Your task to perform on an android device: turn off priority inbox in the gmail app Image 0: 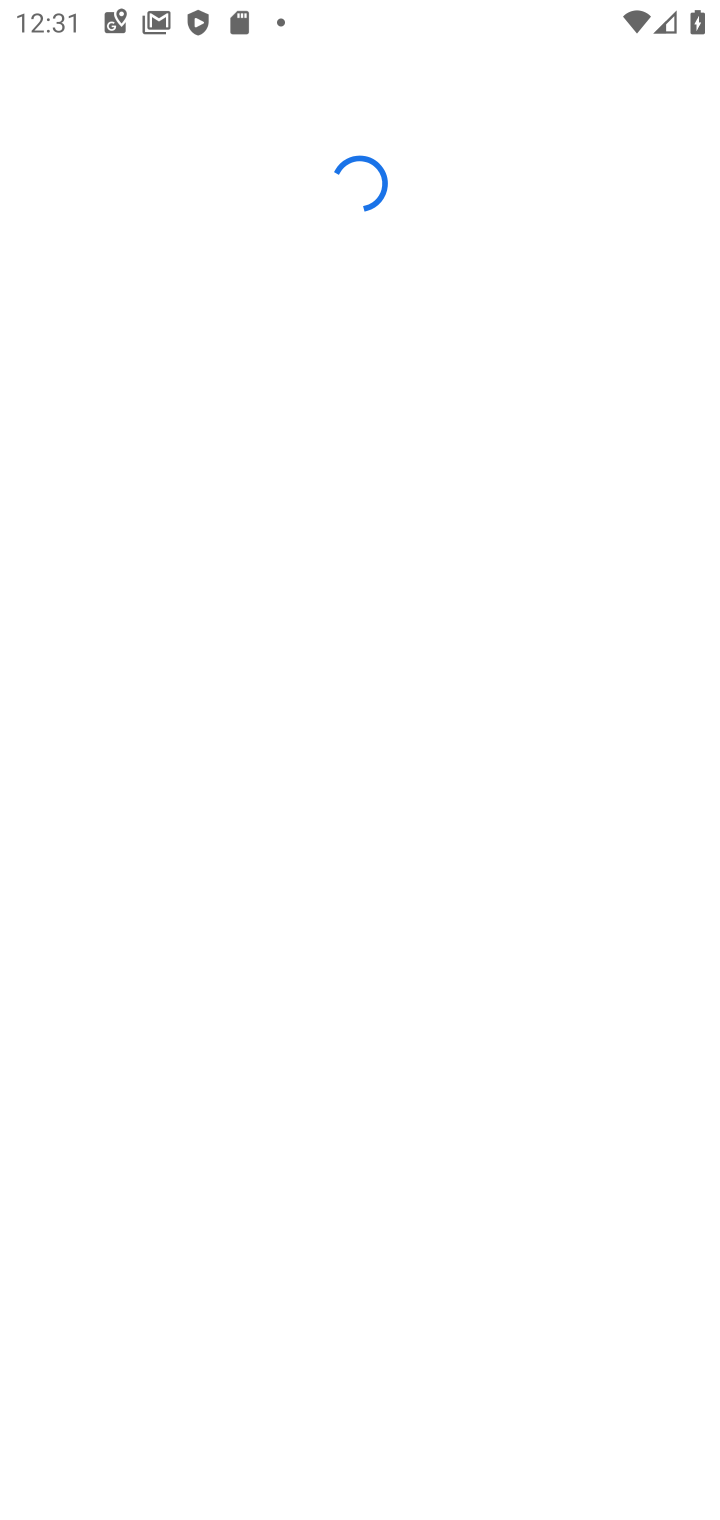
Step 0: press home button
Your task to perform on an android device: turn off priority inbox in the gmail app Image 1: 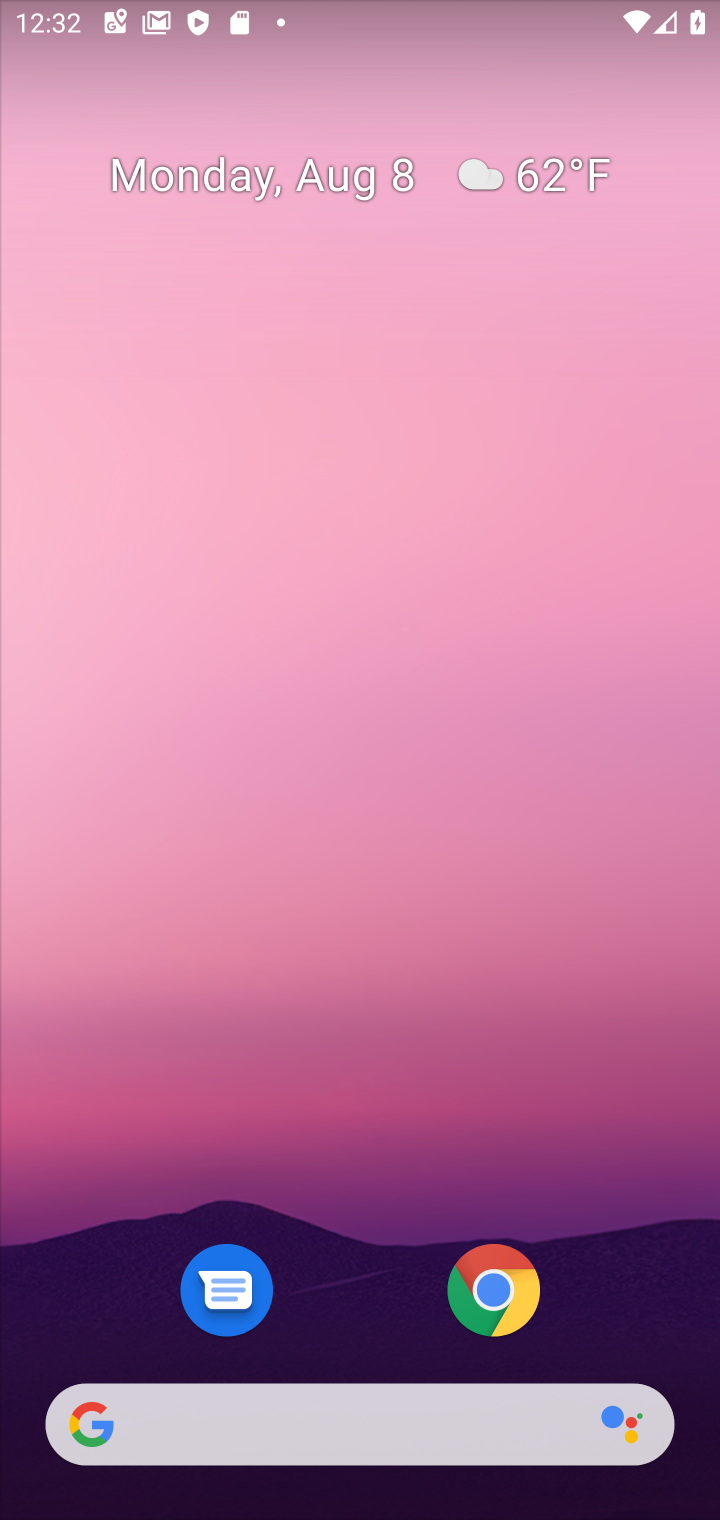
Step 1: drag from (413, 307) to (459, 32)
Your task to perform on an android device: turn off priority inbox in the gmail app Image 2: 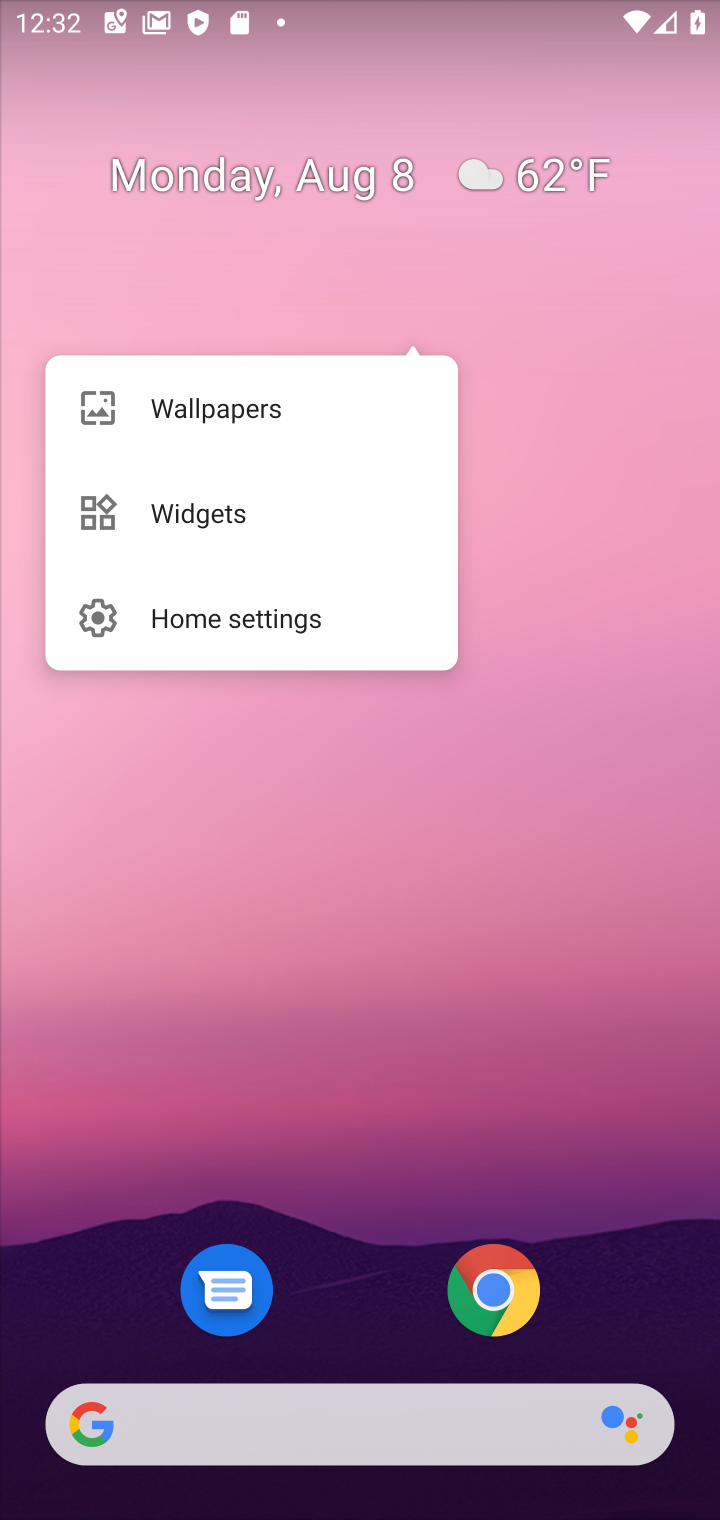
Step 2: click (350, 950)
Your task to perform on an android device: turn off priority inbox in the gmail app Image 3: 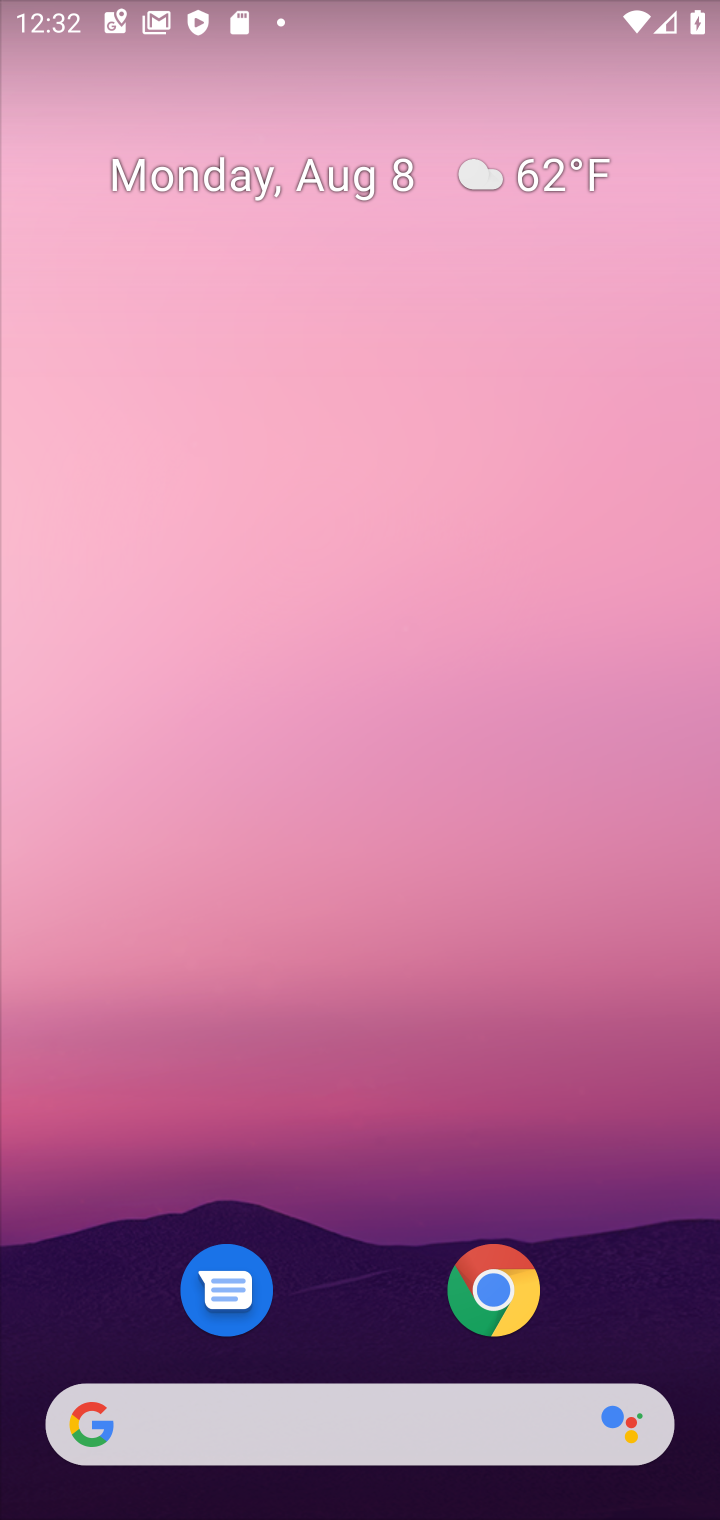
Step 3: drag from (365, 1305) to (387, 27)
Your task to perform on an android device: turn off priority inbox in the gmail app Image 4: 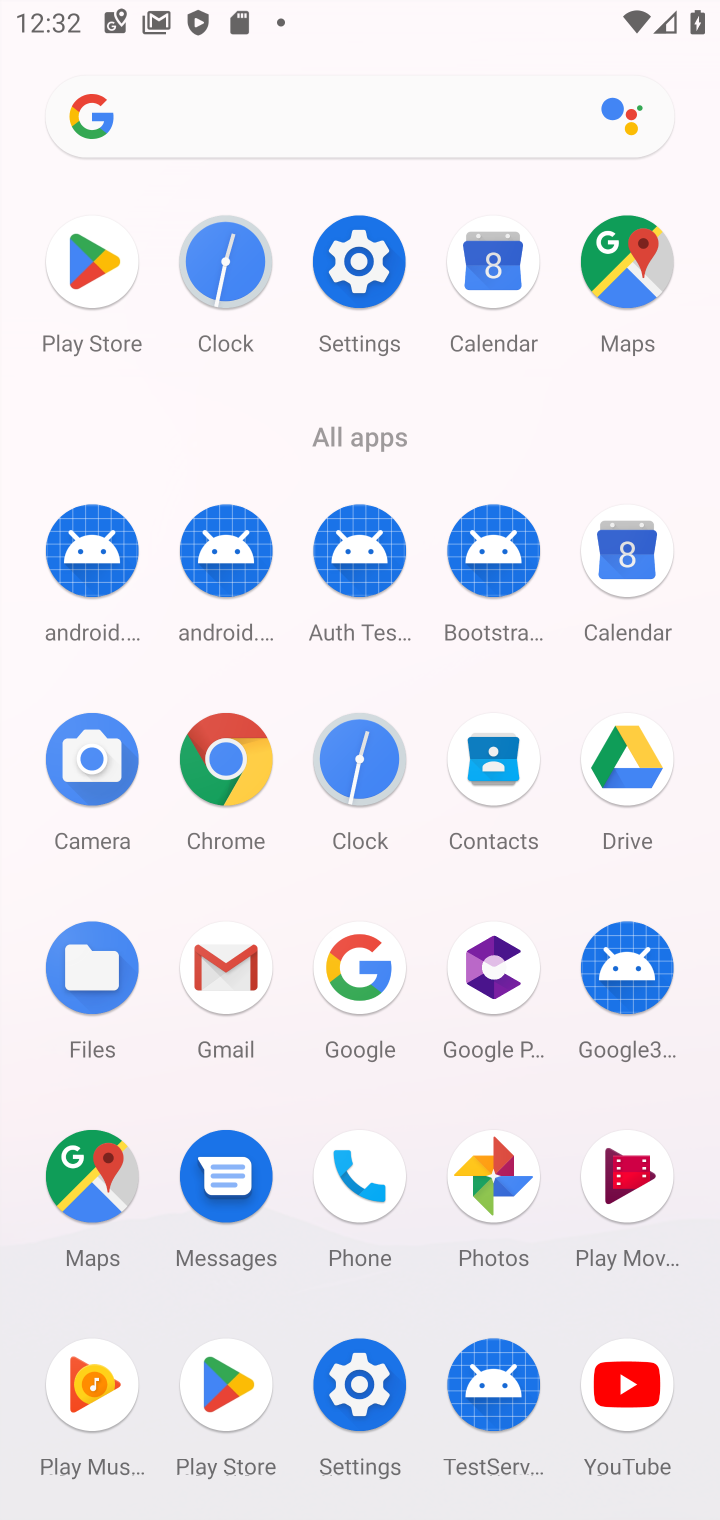
Step 4: click (224, 962)
Your task to perform on an android device: turn off priority inbox in the gmail app Image 5: 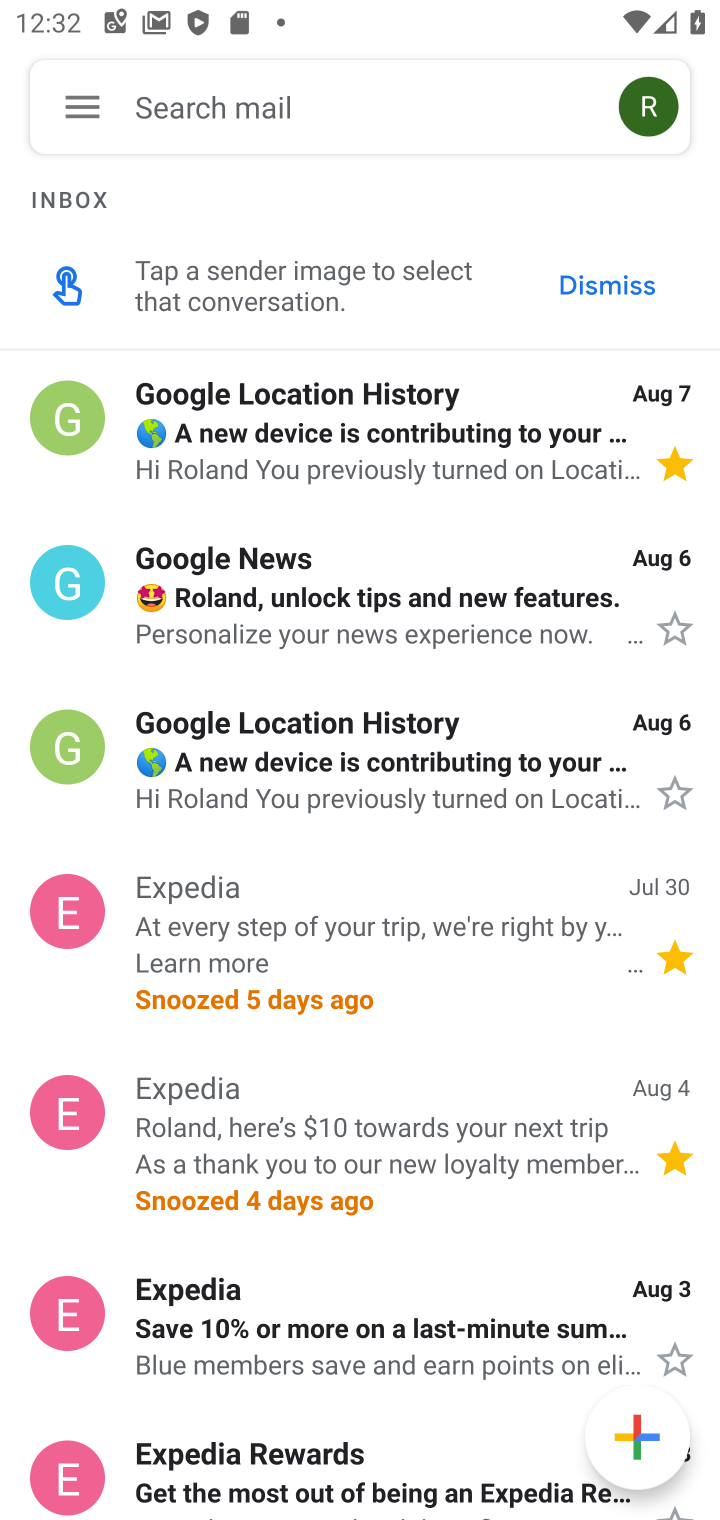
Step 5: click (83, 92)
Your task to perform on an android device: turn off priority inbox in the gmail app Image 6: 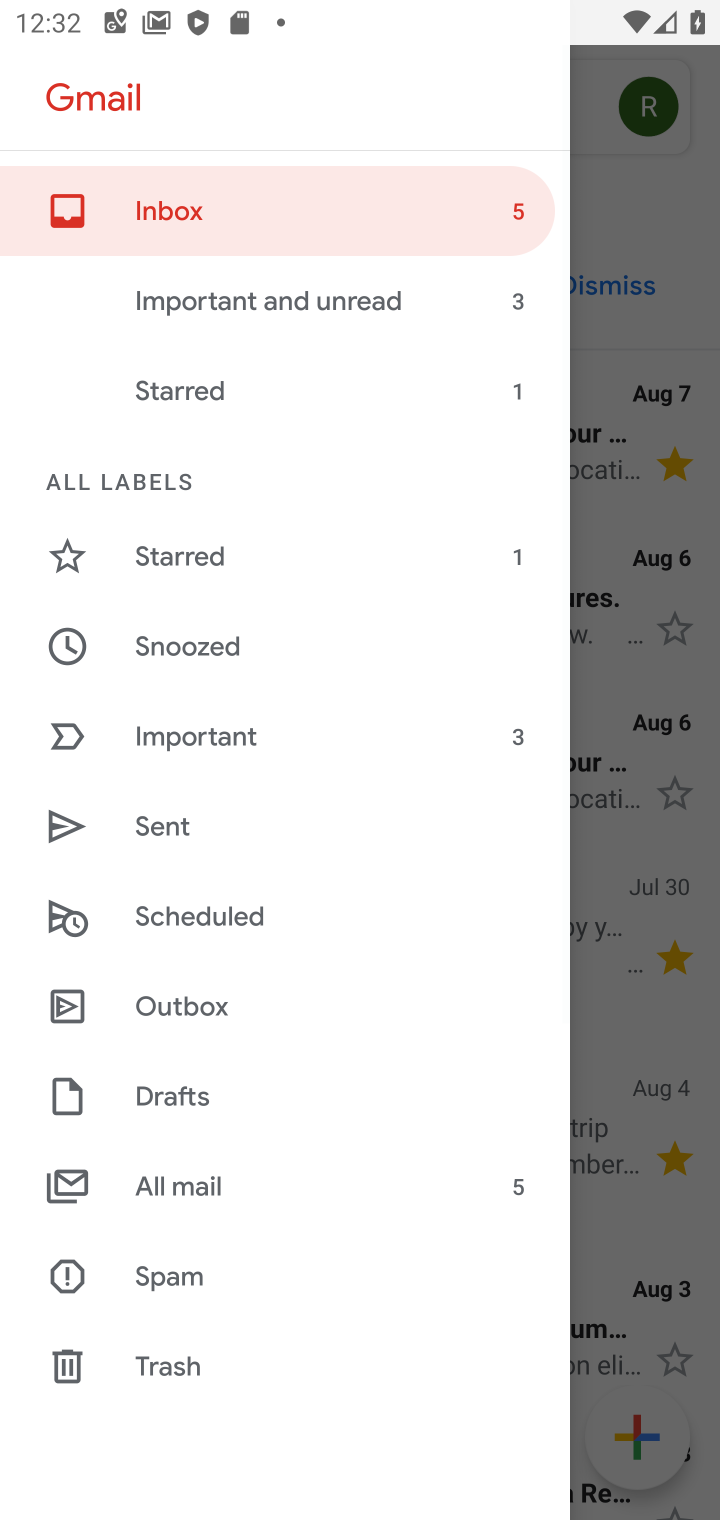
Step 6: drag from (191, 916) to (206, 758)
Your task to perform on an android device: turn off priority inbox in the gmail app Image 7: 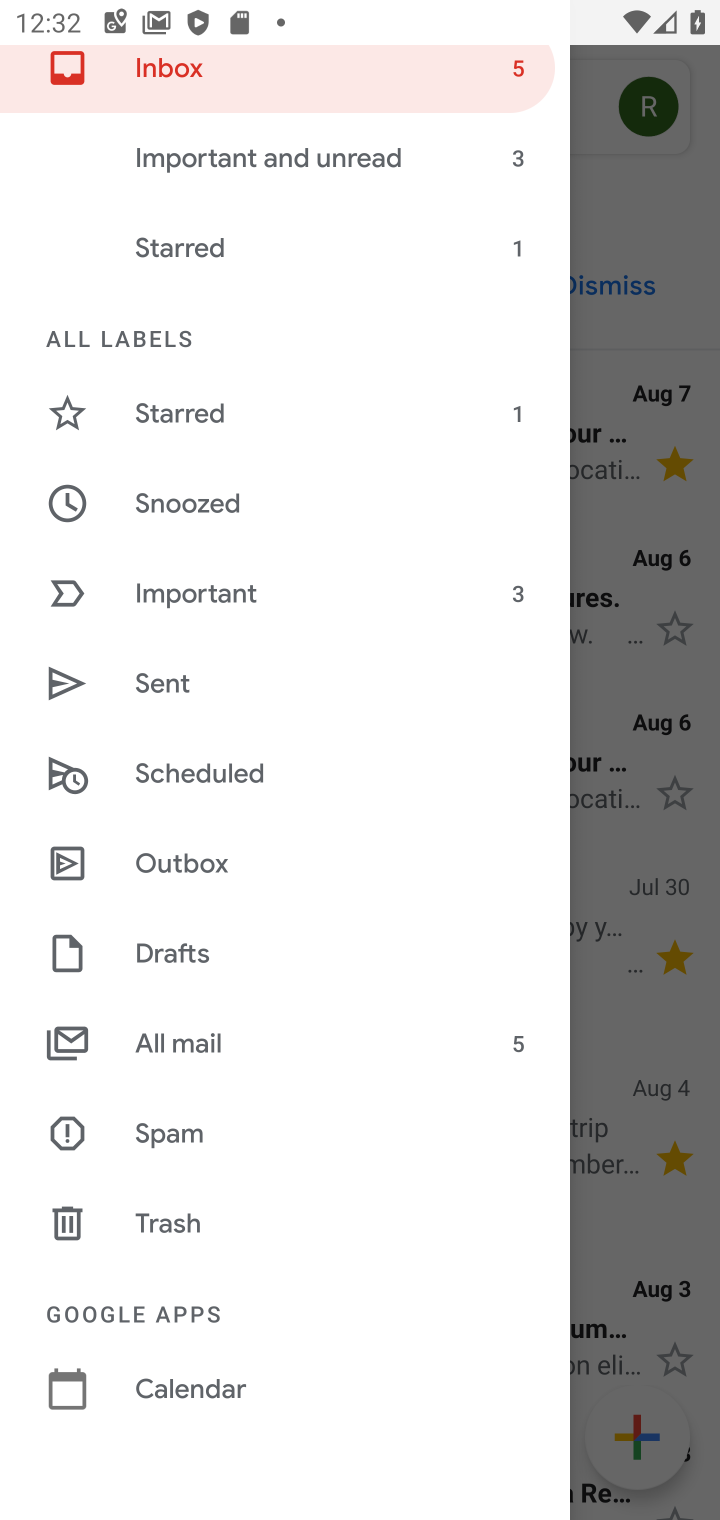
Step 7: drag from (251, 1375) to (286, 507)
Your task to perform on an android device: turn off priority inbox in the gmail app Image 8: 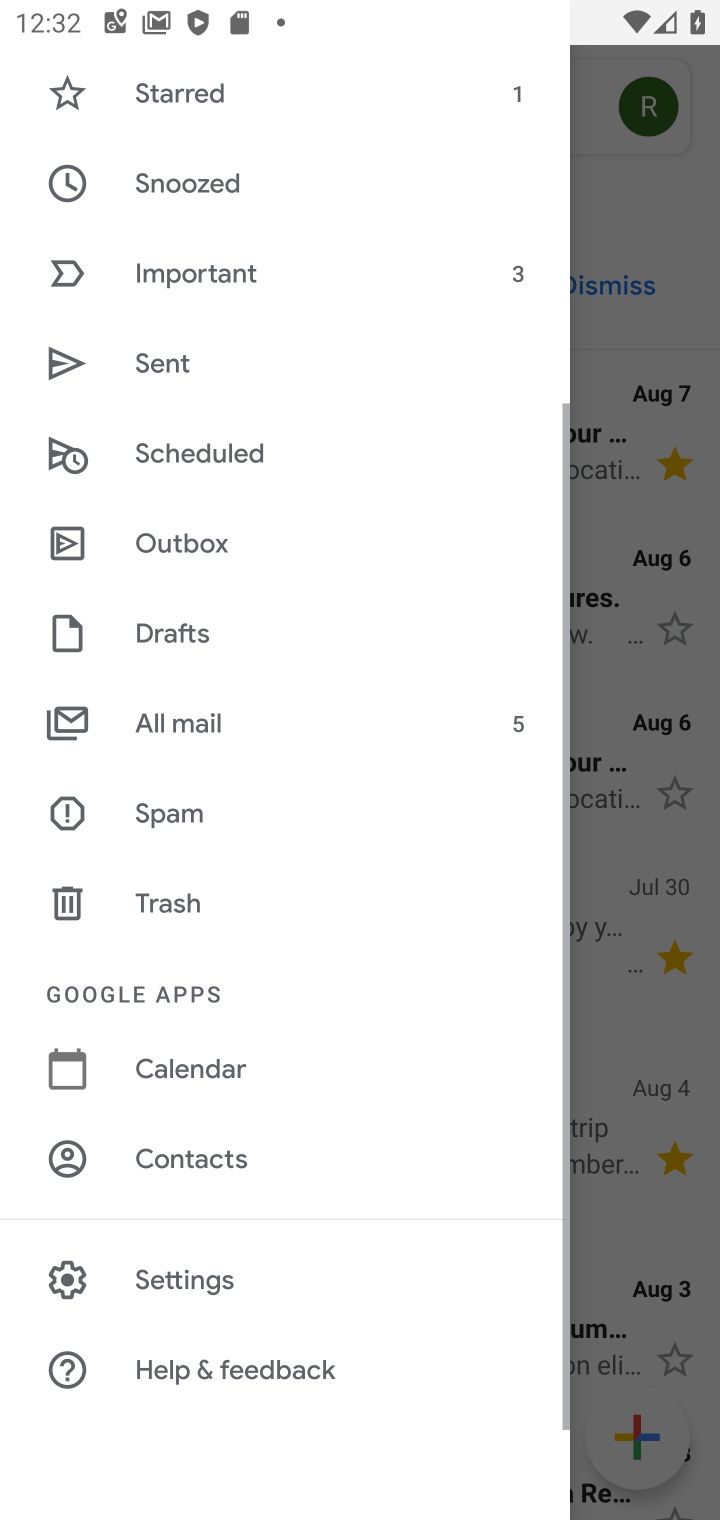
Step 8: click (221, 1283)
Your task to perform on an android device: turn off priority inbox in the gmail app Image 9: 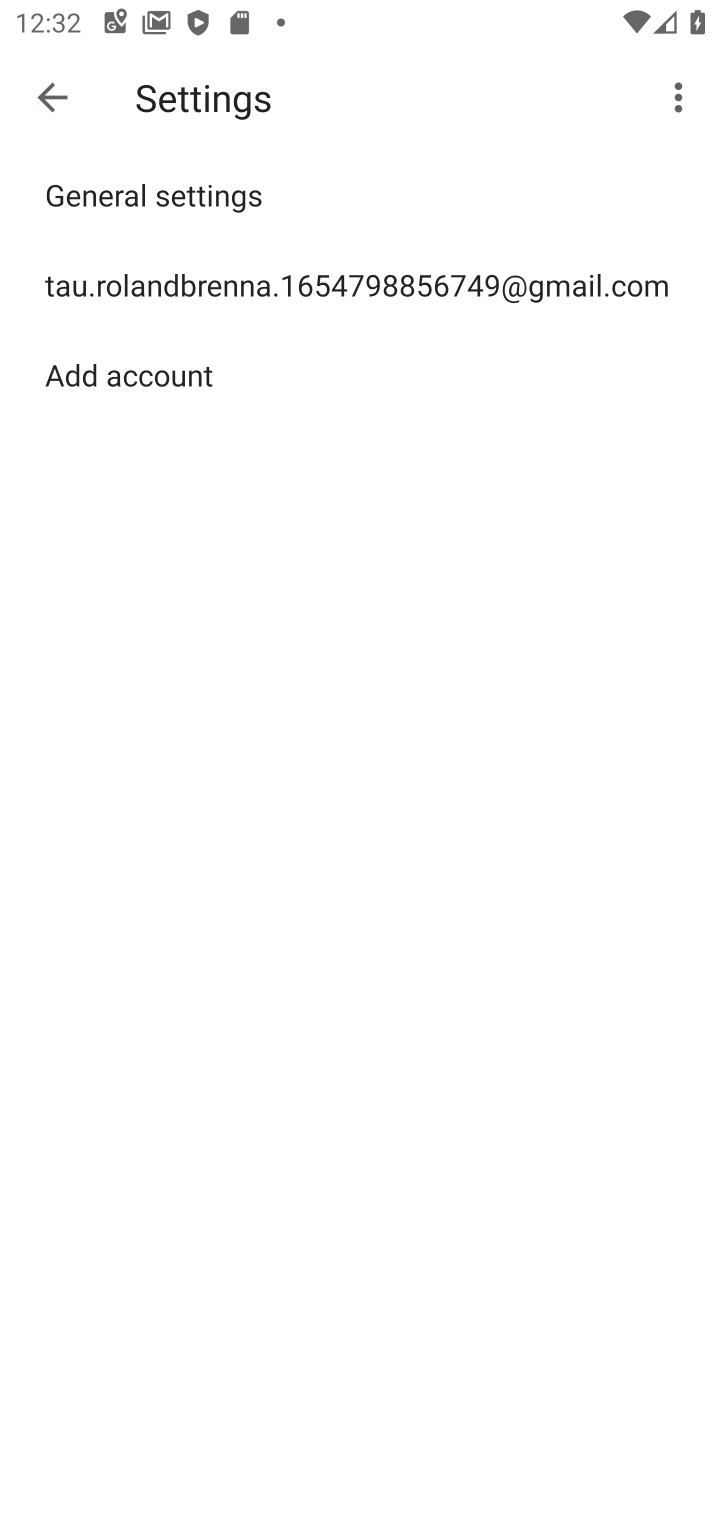
Step 9: click (517, 288)
Your task to perform on an android device: turn off priority inbox in the gmail app Image 10: 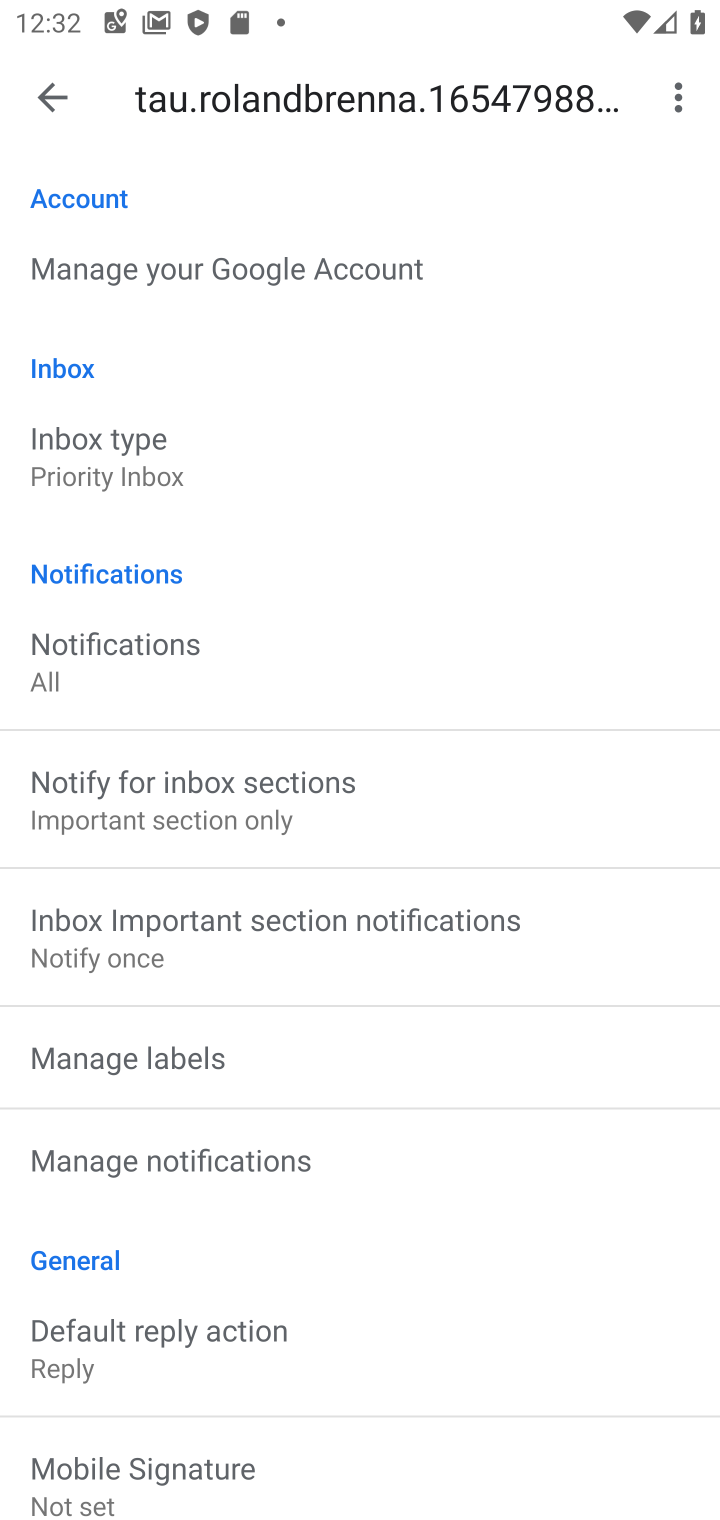
Step 10: drag from (357, 1330) to (367, 339)
Your task to perform on an android device: turn off priority inbox in the gmail app Image 11: 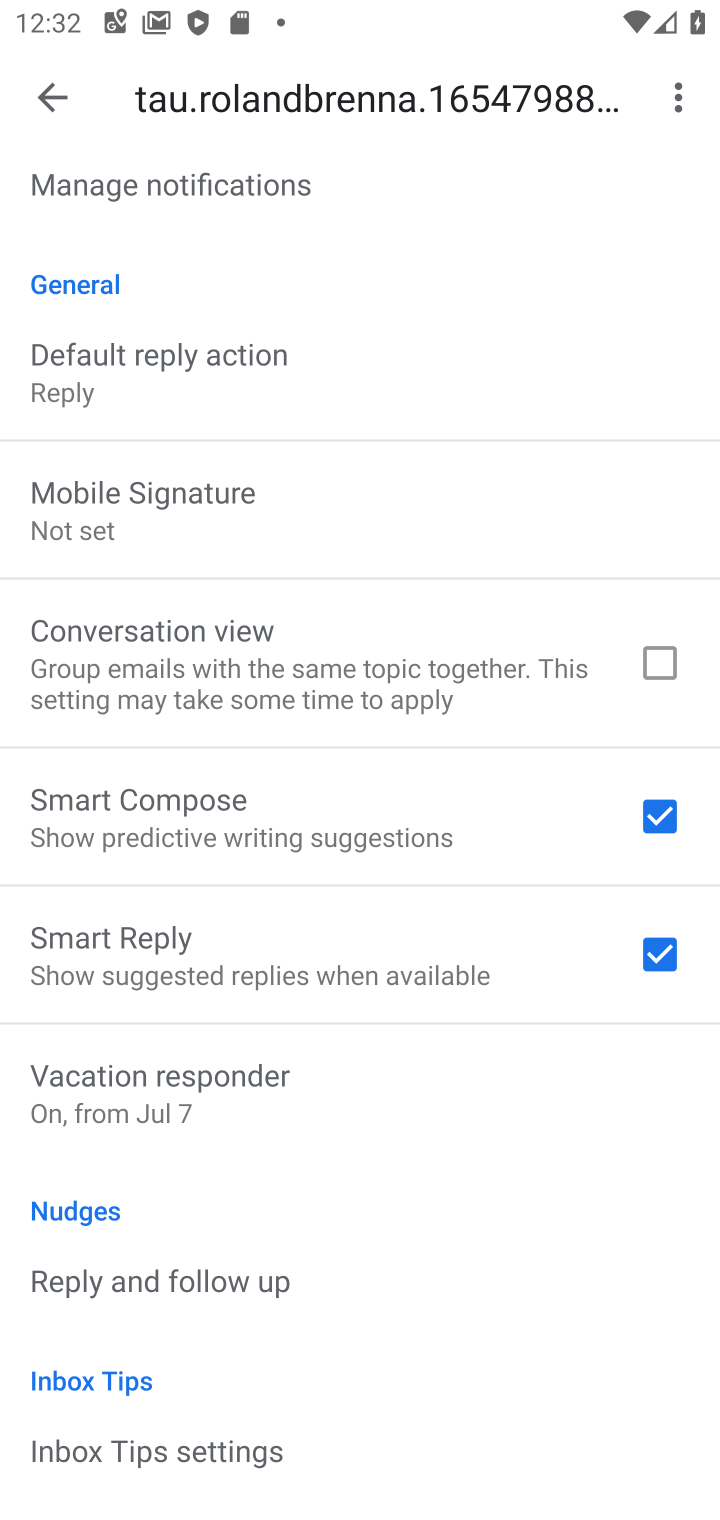
Step 11: drag from (185, 252) to (387, 1092)
Your task to perform on an android device: turn off priority inbox in the gmail app Image 12: 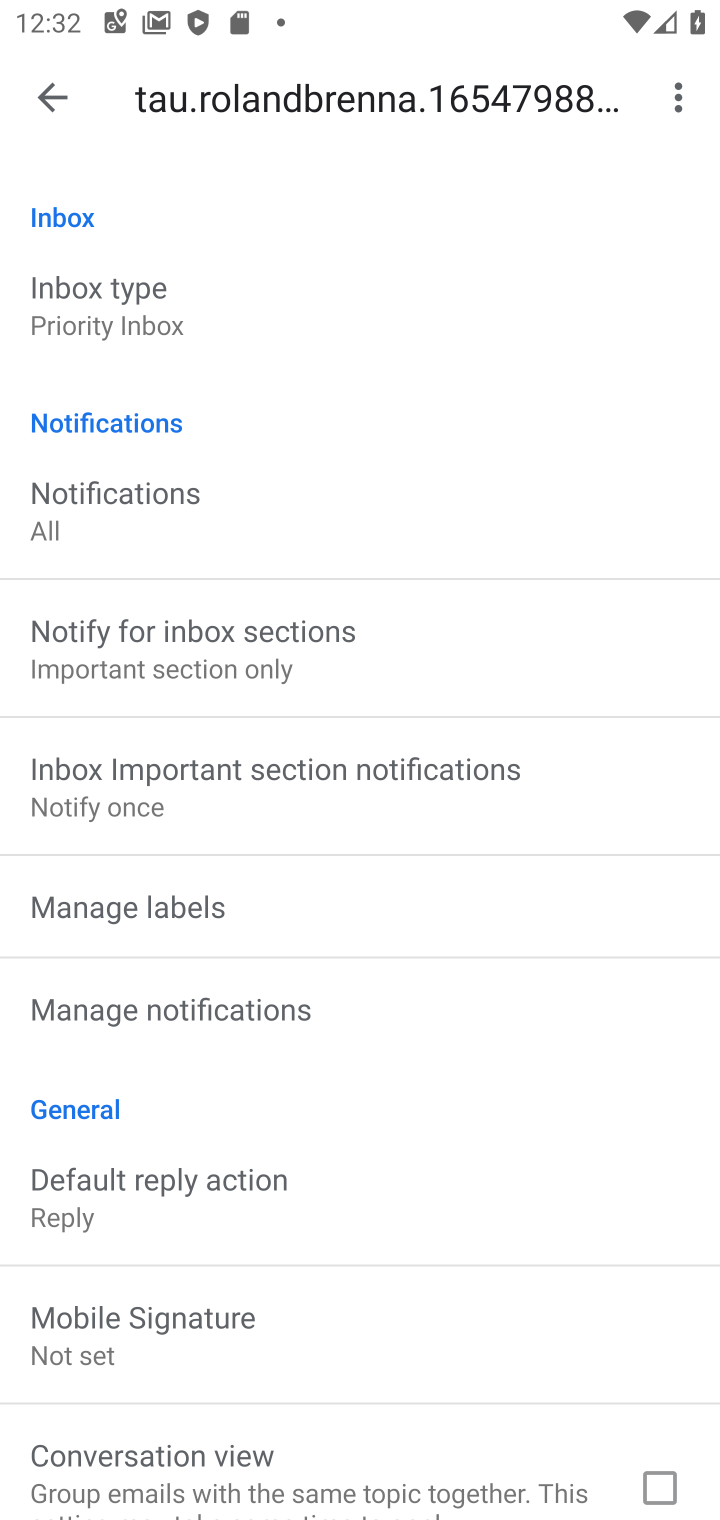
Step 12: click (157, 299)
Your task to perform on an android device: turn off priority inbox in the gmail app Image 13: 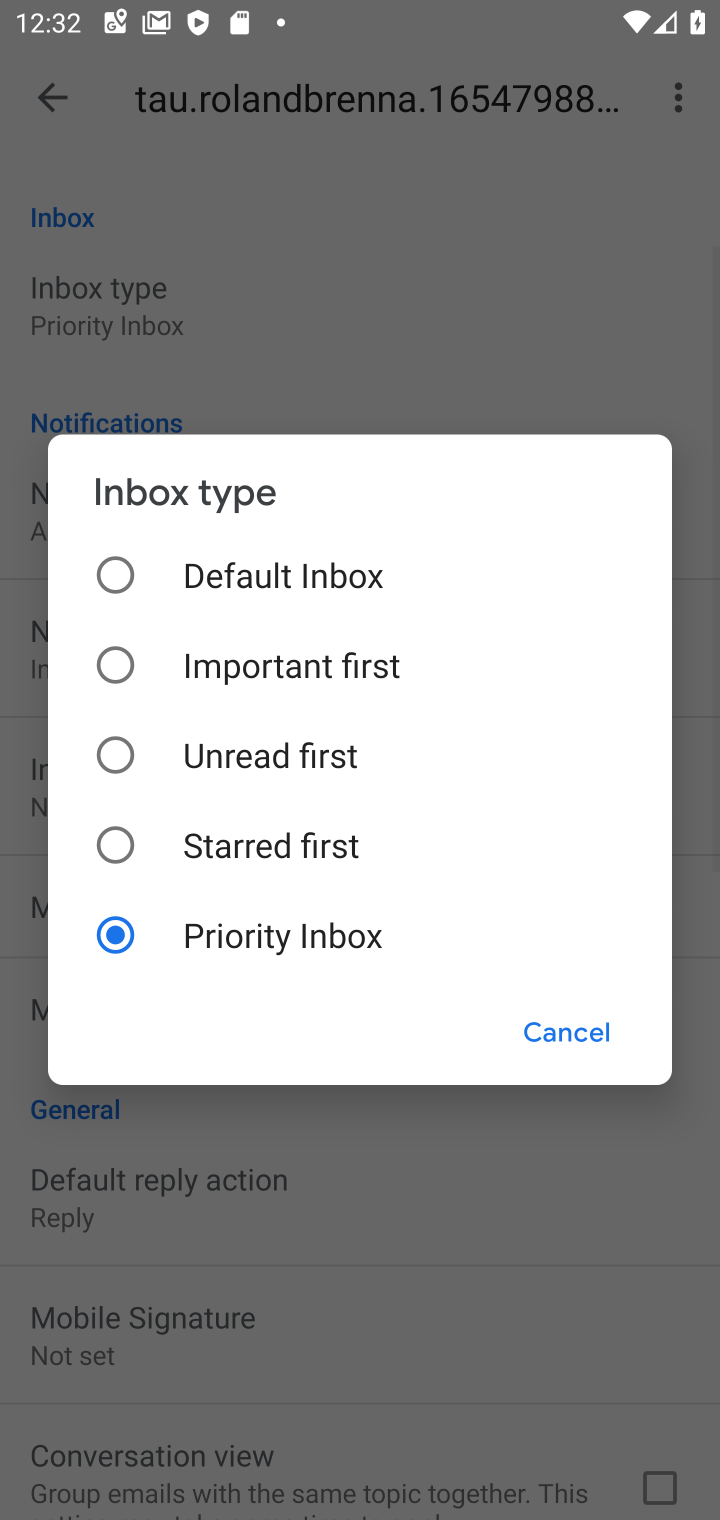
Step 13: click (220, 587)
Your task to perform on an android device: turn off priority inbox in the gmail app Image 14: 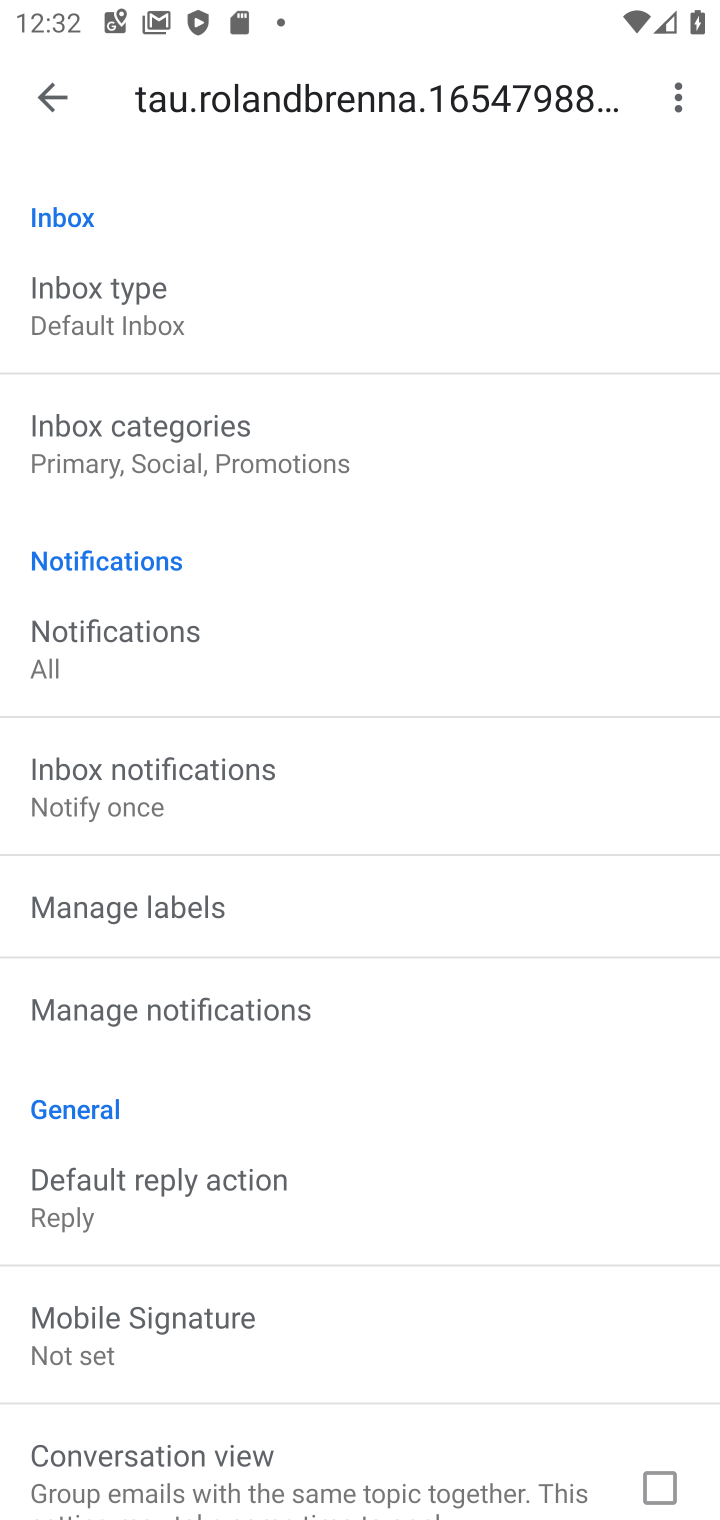
Step 14: task complete